Your task to perform on an android device: turn on showing notifications on the lock screen Image 0: 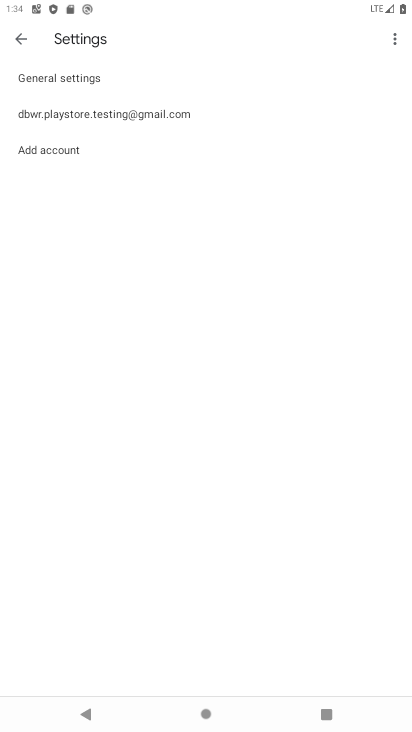
Step 0: press home button
Your task to perform on an android device: turn on showing notifications on the lock screen Image 1: 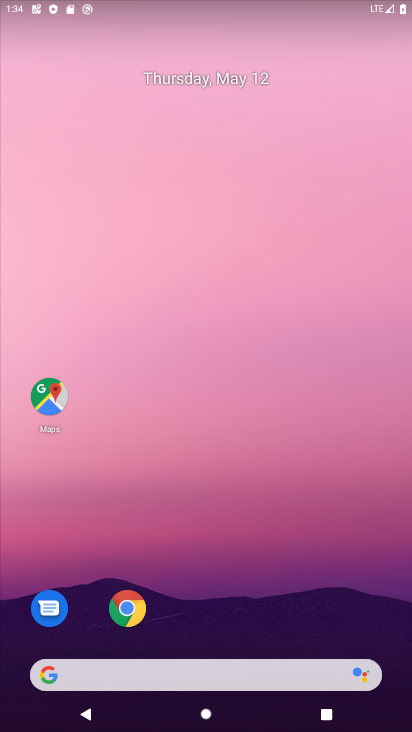
Step 1: drag from (227, 633) to (274, 0)
Your task to perform on an android device: turn on showing notifications on the lock screen Image 2: 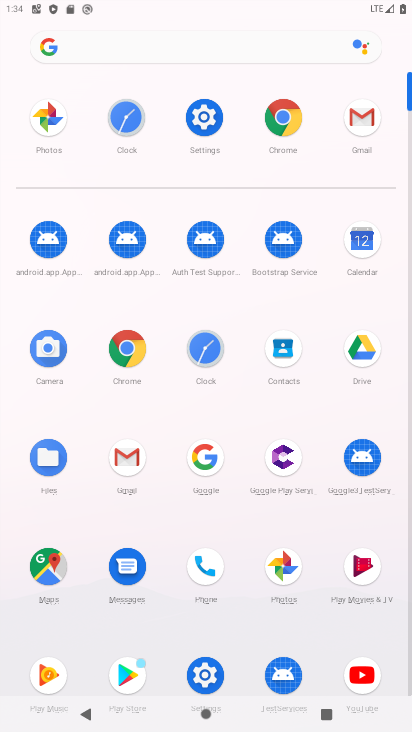
Step 2: click (201, 120)
Your task to perform on an android device: turn on showing notifications on the lock screen Image 3: 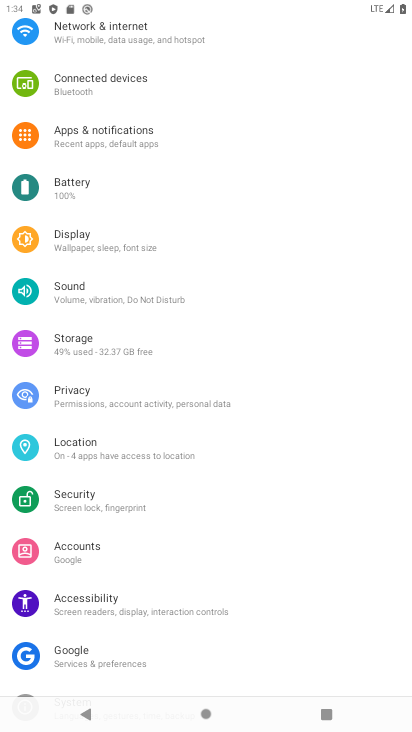
Step 3: click (124, 141)
Your task to perform on an android device: turn on showing notifications on the lock screen Image 4: 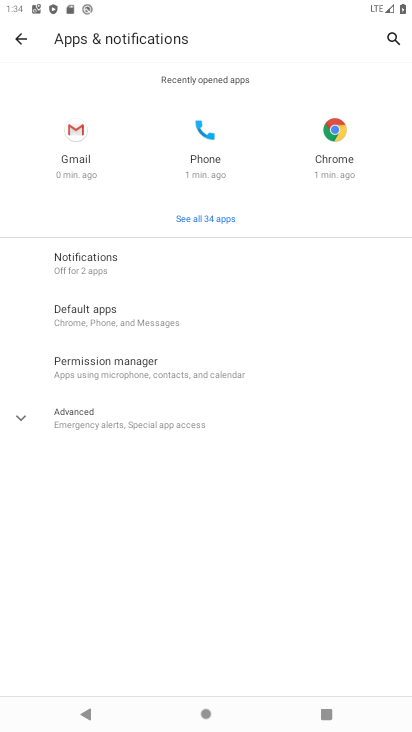
Step 4: click (98, 267)
Your task to perform on an android device: turn on showing notifications on the lock screen Image 5: 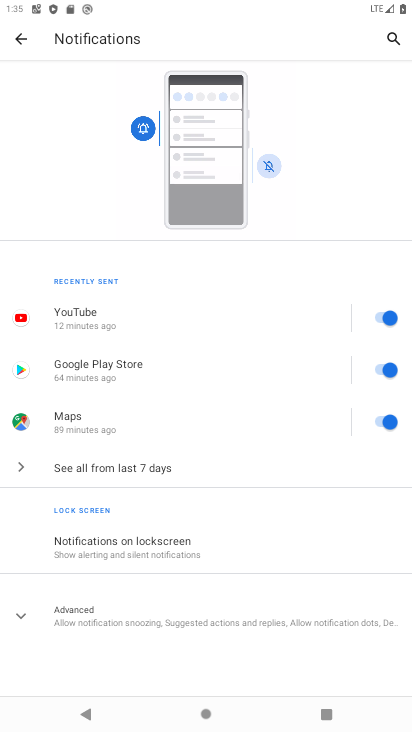
Step 5: click (108, 547)
Your task to perform on an android device: turn on showing notifications on the lock screen Image 6: 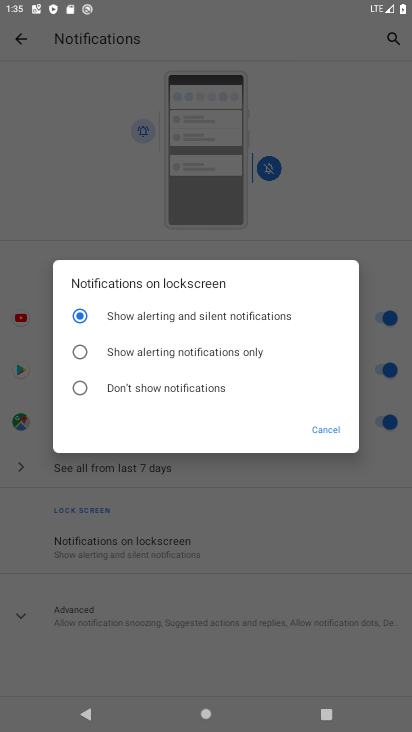
Step 6: task complete